Your task to perform on an android device: turn on wifi Image 0: 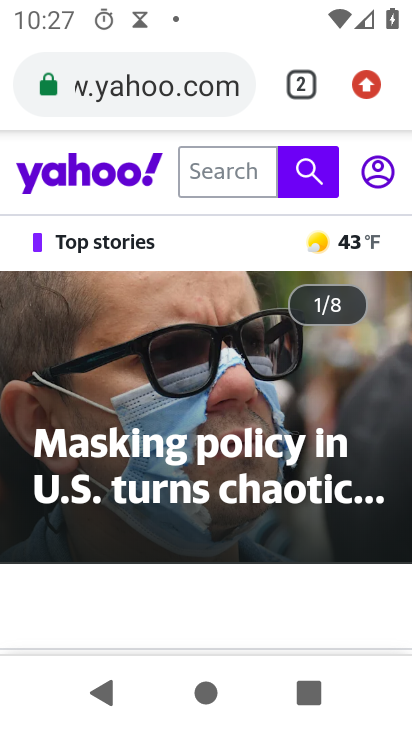
Step 0: press home button
Your task to perform on an android device: turn on wifi Image 1: 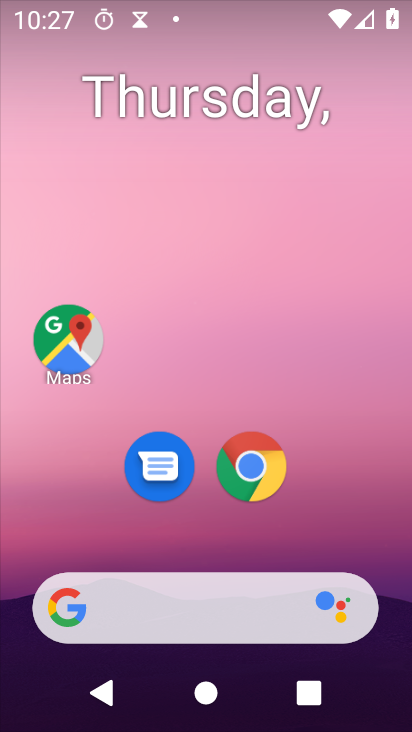
Step 1: drag from (177, 615) to (300, 58)
Your task to perform on an android device: turn on wifi Image 2: 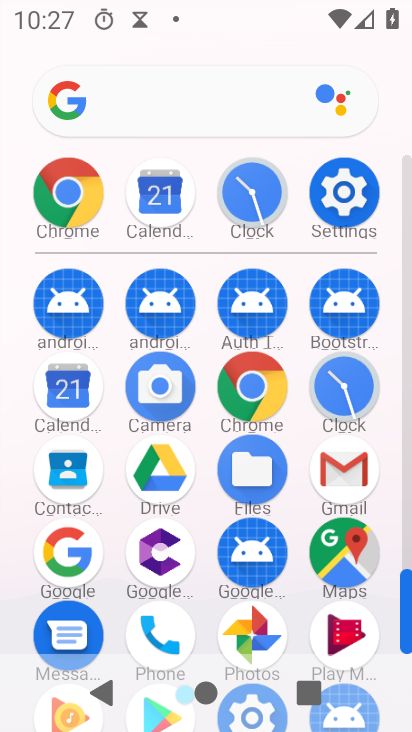
Step 2: click (339, 196)
Your task to perform on an android device: turn on wifi Image 3: 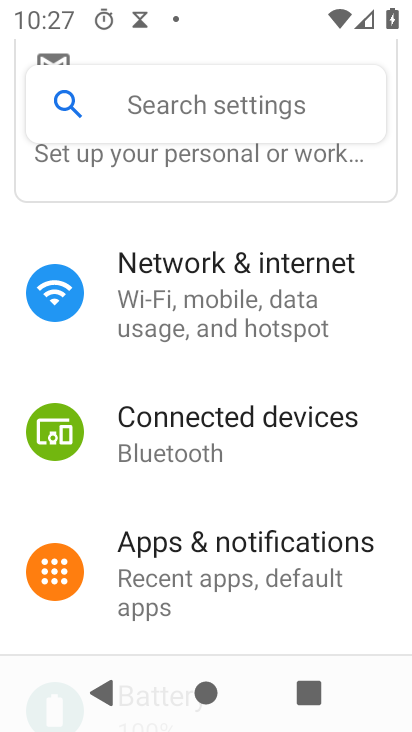
Step 3: click (274, 251)
Your task to perform on an android device: turn on wifi Image 4: 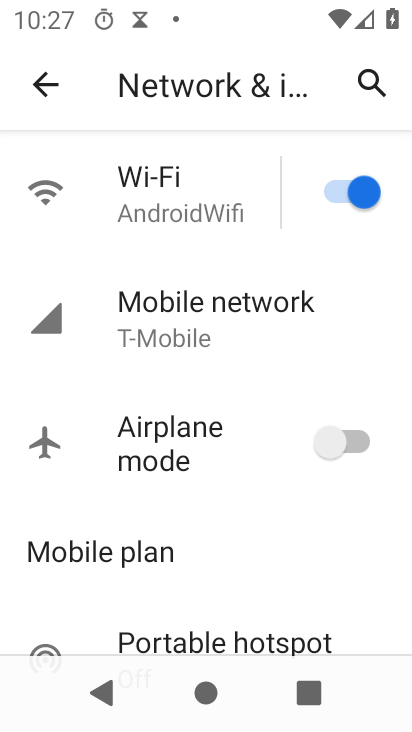
Step 4: task complete